Your task to perform on an android device: Go to battery settings Image 0: 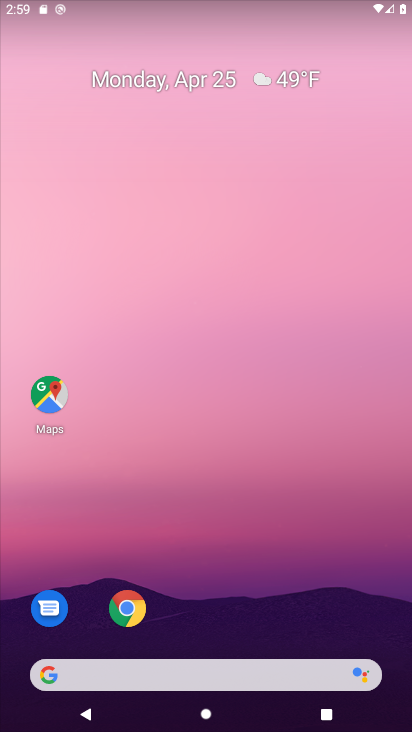
Step 0: drag from (173, 684) to (212, 80)
Your task to perform on an android device: Go to battery settings Image 1: 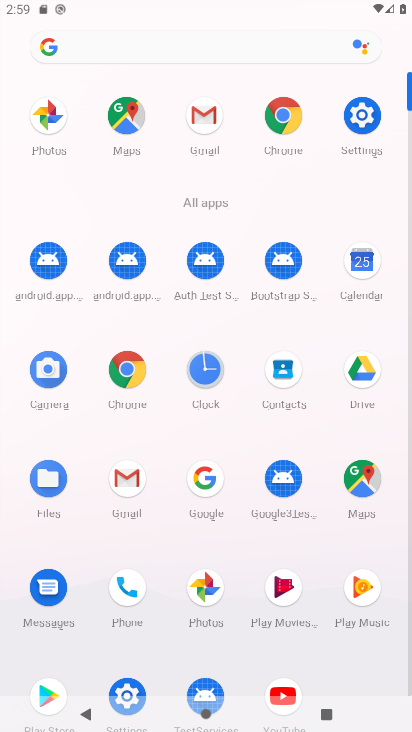
Step 1: click (124, 677)
Your task to perform on an android device: Go to battery settings Image 2: 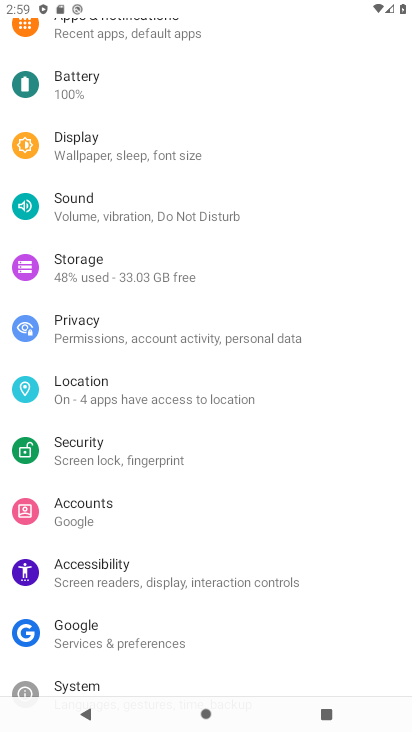
Step 2: click (106, 112)
Your task to perform on an android device: Go to battery settings Image 3: 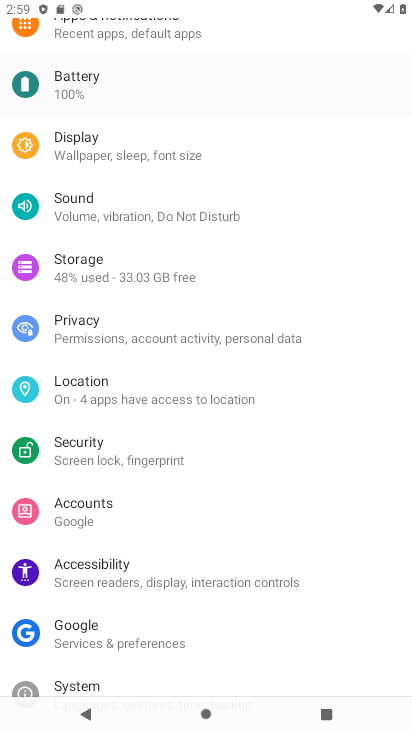
Step 3: click (84, 91)
Your task to perform on an android device: Go to battery settings Image 4: 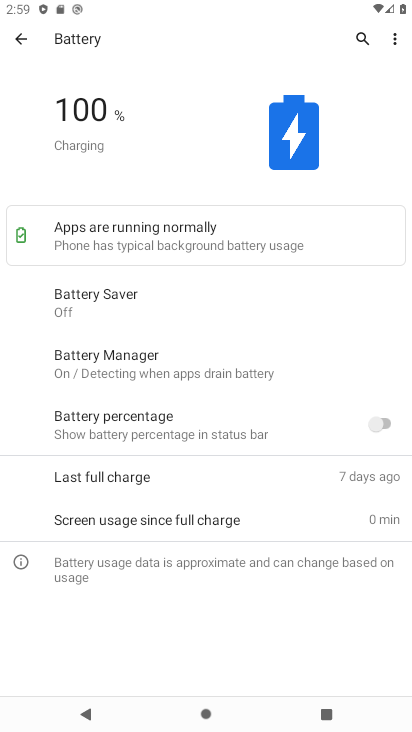
Step 4: task complete